Your task to perform on an android device: toggle sleep mode Image 0: 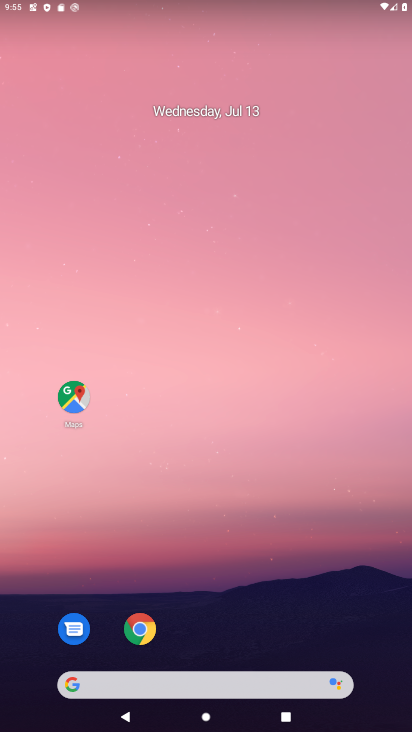
Step 0: drag from (212, 649) to (193, 166)
Your task to perform on an android device: toggle sleep mode Image 1: 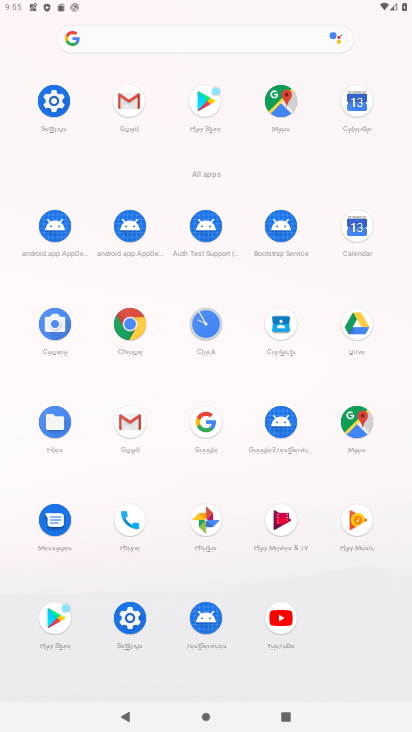
Step 1: click (130, 616)
Your task to perform on an android device: toggle sleep mode Image 2: 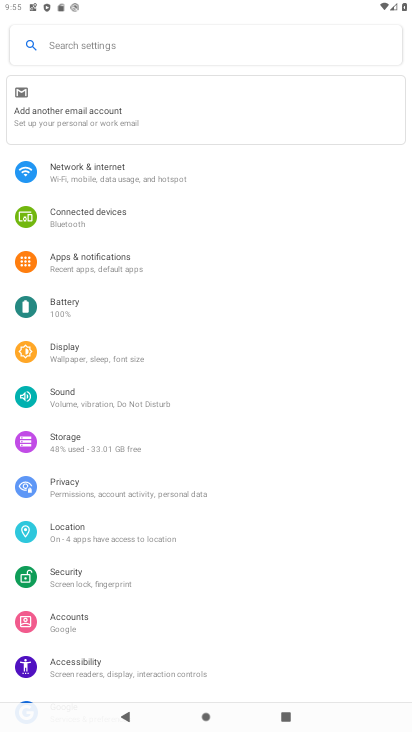
Step 2: click (96, 347)
Your task to perform on an android device: toggle sleep mode Image 3: 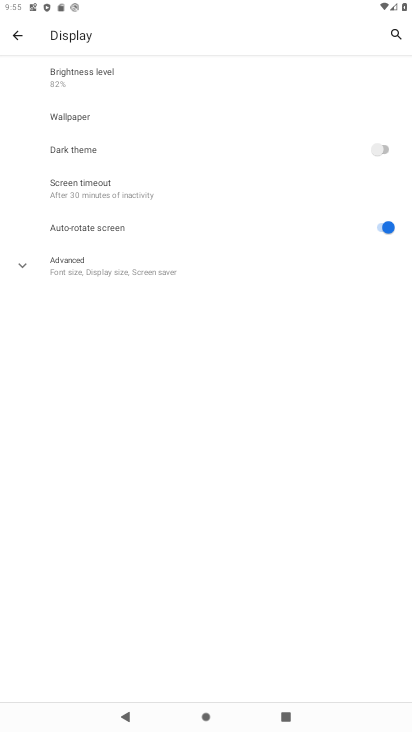
Step 3: click (20, 256)
Your task to perform on an android device: toggle sleep mode Image 4: 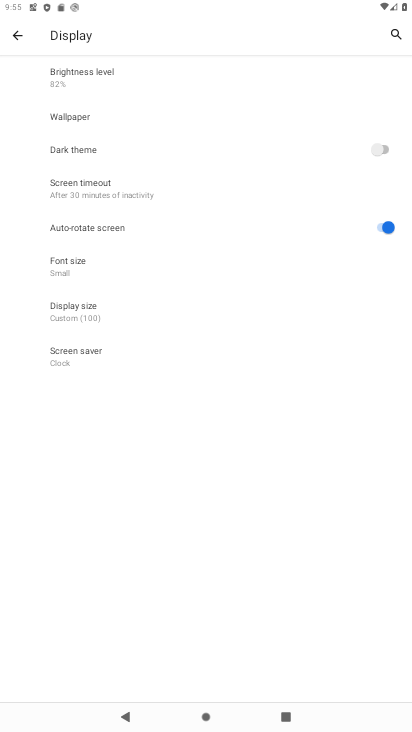
Step 4: task complete